Your task to perform on an android device: Show me popular videos on Youtube Image 0: 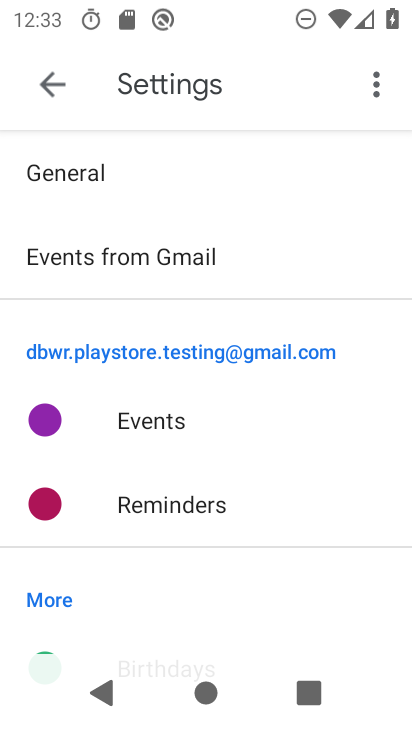
Step 0: press home button
Your task to perform on an android device: Show me popular videos on Youtube Image 1: 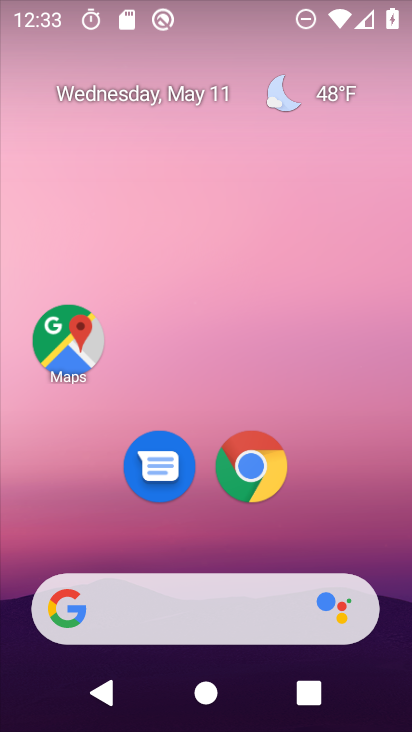
Step 1: drag from (207, 530) to (234, 94)
Your task to perform on an android device: Show me popular videos on Youtube Image 2: 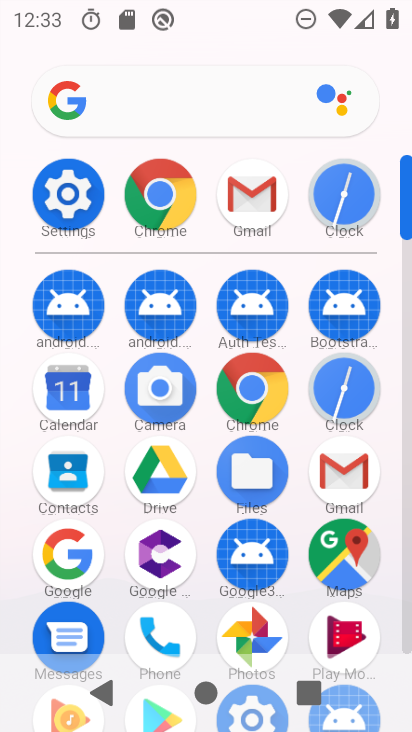
Step 2: drag from (204, 593) to (222, 188)
Your task to perform on an android device: Show me popular videos on Youtube Image 3: 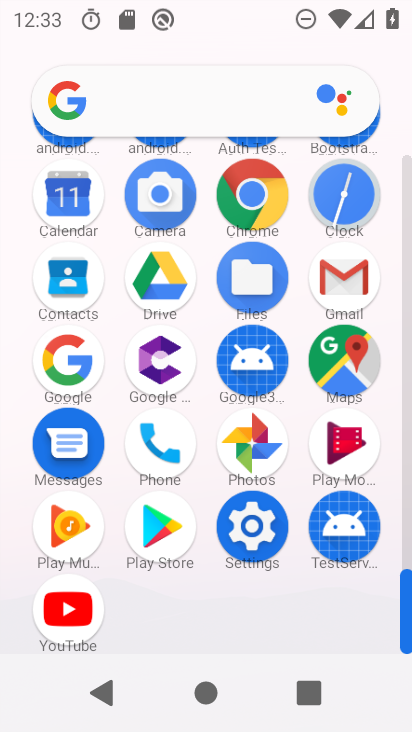
Step 3: click (66, 602)
Your task to perform on an android device: Show me popular videos on Youtube Image 4: 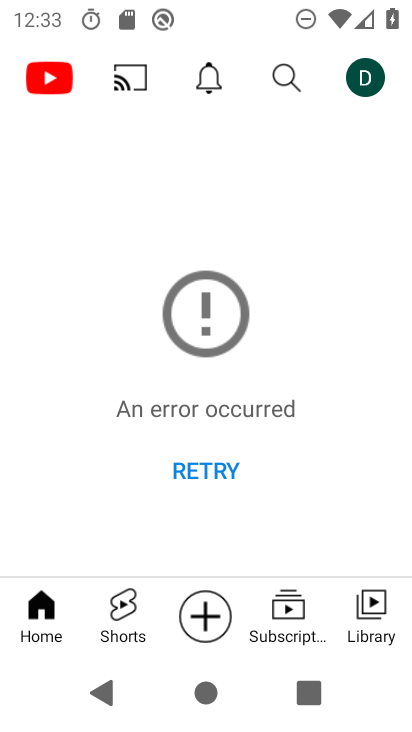
Step 4: drag from (96, 489) to (116, 167)
Your task to perform on an android device: Show me popular videos on Youtube Image 5: 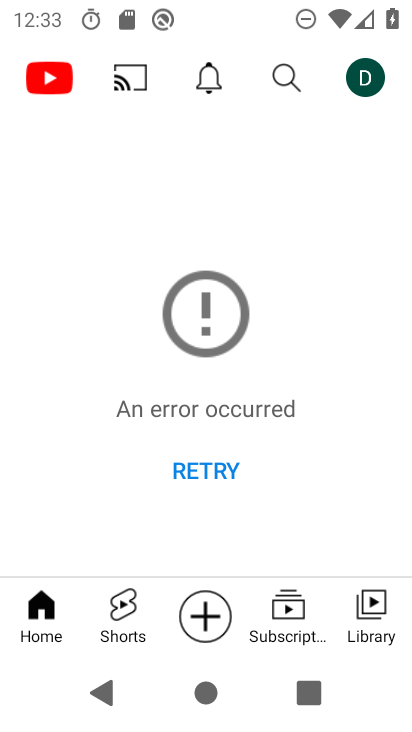
Step 5: click (217, 467)
Your task to perform on an android device: Show me popular videos on Youtube Image 6: 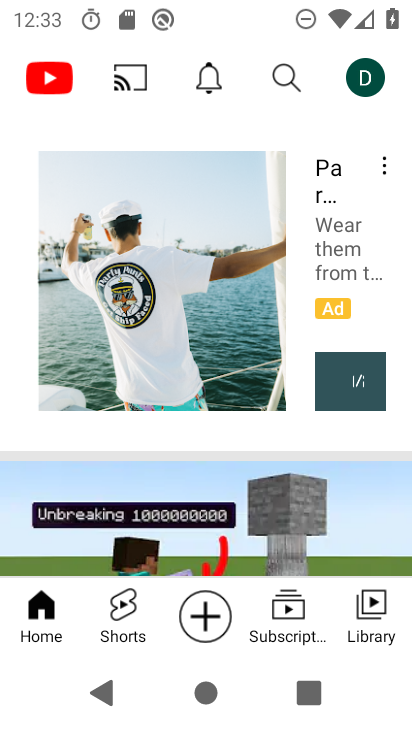
Step 6: click (95, 160)
Your task to perform on an android device: Show me popular videos on Youtube Image 7: 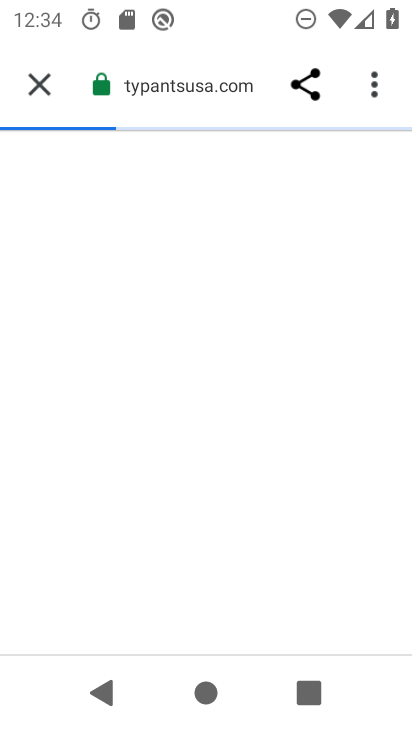
Step 7: click (29, 88)
Your task to perform on an android device: Show me popular videos on Youtube Image 8: 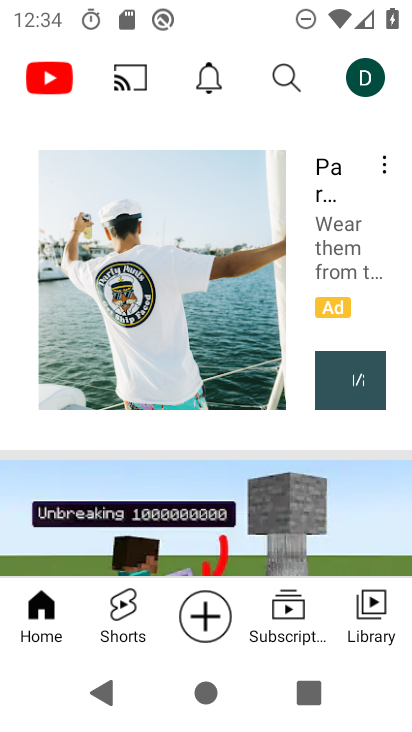
Step 8: drag from (133, 496) to (159, 58)
Your task to perform on an android device: Show me popular videos on Youtube Image 9: 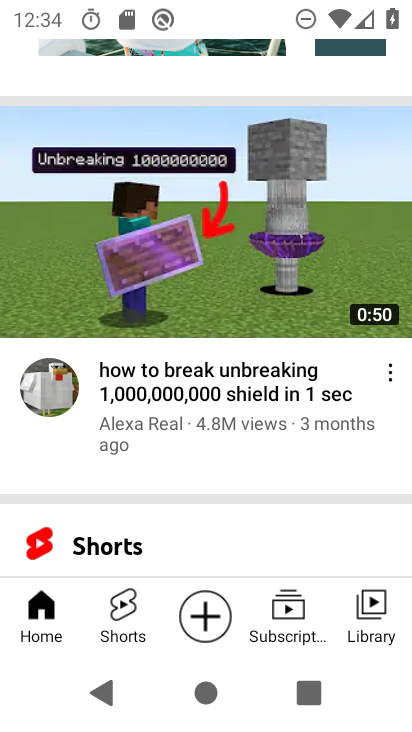
Step 9: drag from (136, 426) to (159, 65)
Your task to perform on an android device: Show me popular videos on Youtube Image 10: 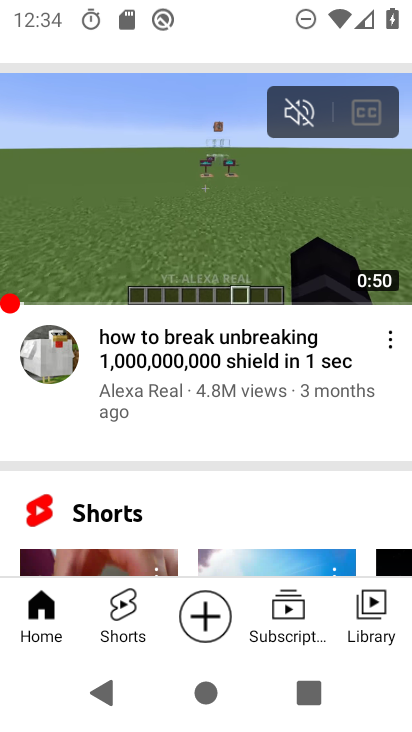
Step 10: drag from (148, 250) to (145, 584)
Your task to perform on an android device: Show me popular videos on Youtube Image 11: 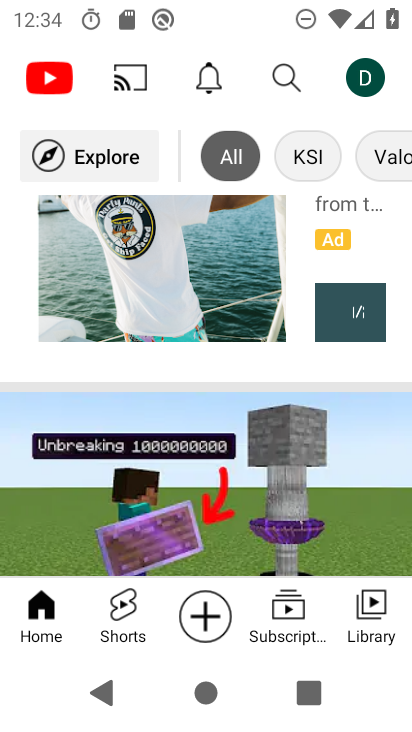
Step 11: click (88, 148)
Your task to perform on an android device: Show me popular videos on Youtube Image 12: 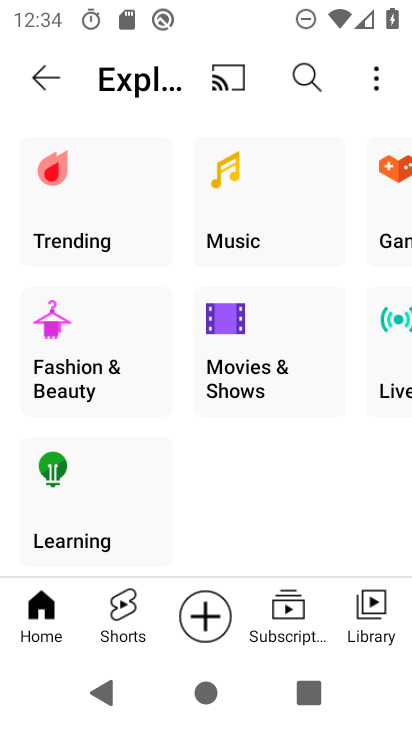
Step 12: click (74, 203)
Your task to perform on an android device: Show me popular videos on Youtube Image 13: 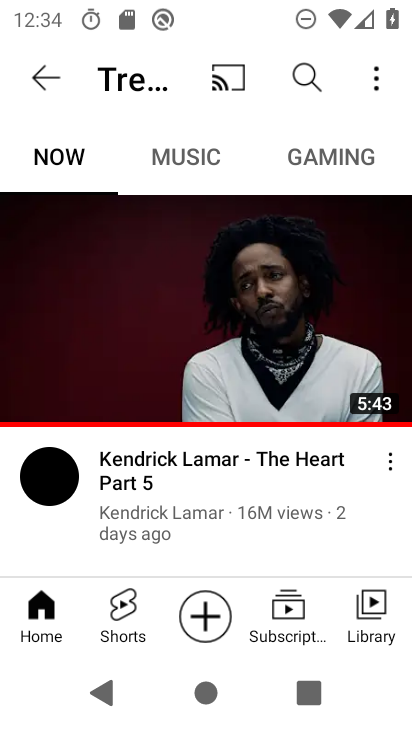
Step 13: task complete